Your task to perform on an android device: Open Yahoo.com Image 0: 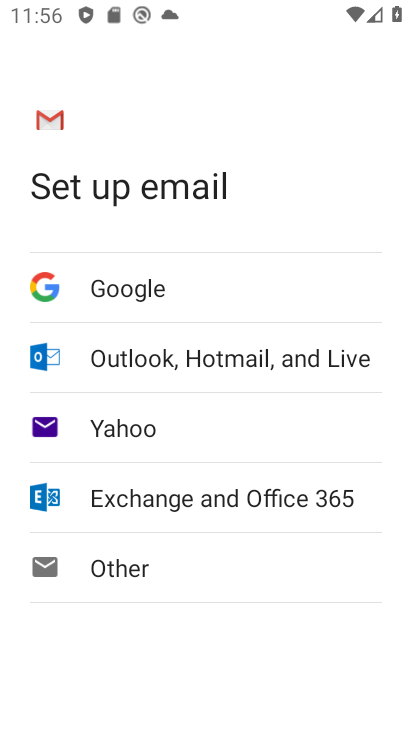
Step 0: press home button
Your task to perform on an android device: Open Yahoo.com Image 1: 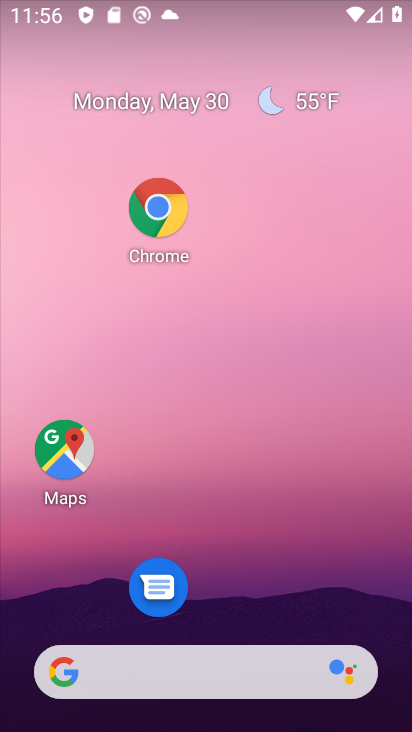
Step 1: click (159, 219)
Your task to perform on an android device: Open Yahoo.com Image 2: 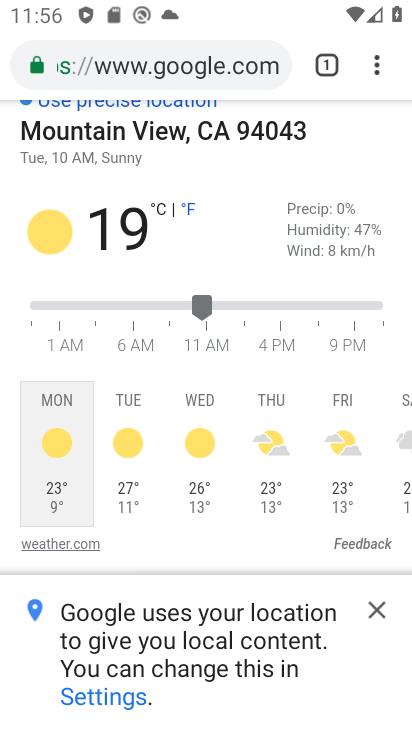
Step 2: click (325, 69)
Your task to perform on an android device: Open Yahoo.com Image 3: 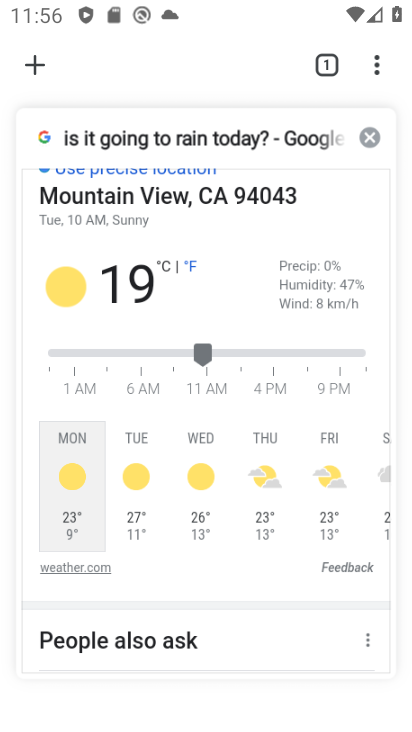
Step 3: click (34, 60)
Your task to perform on an android device: Open Yahoo.com Image 4: 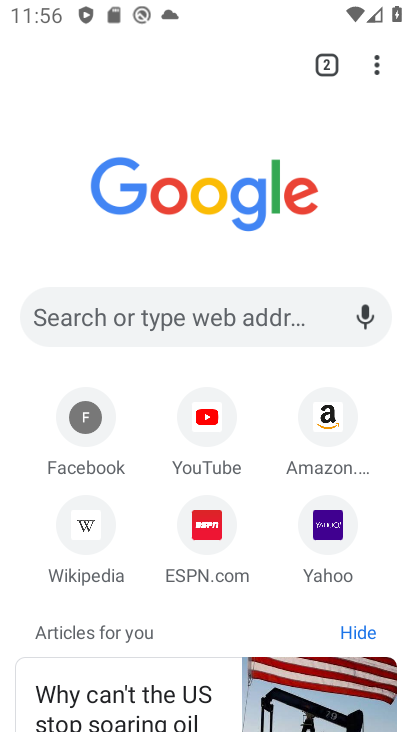
Step 4: click (338, 547)
Your task to perform on an android device: Open Yahoo.com Image 5: 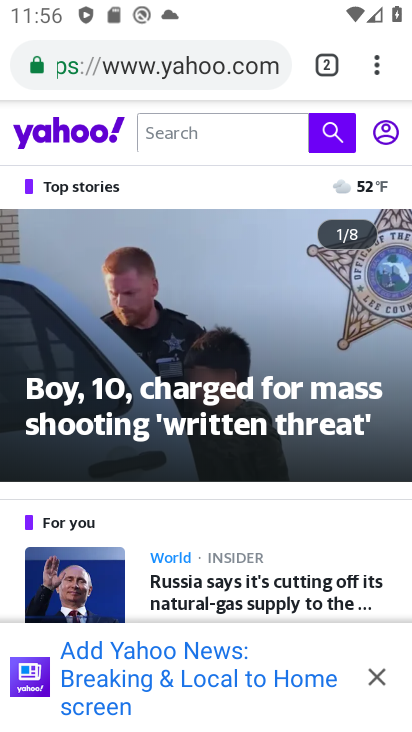
Step 5: task complete